Your task to perform on an android device: open app "Yahoo Mail" (install if not already installed) Image 0: 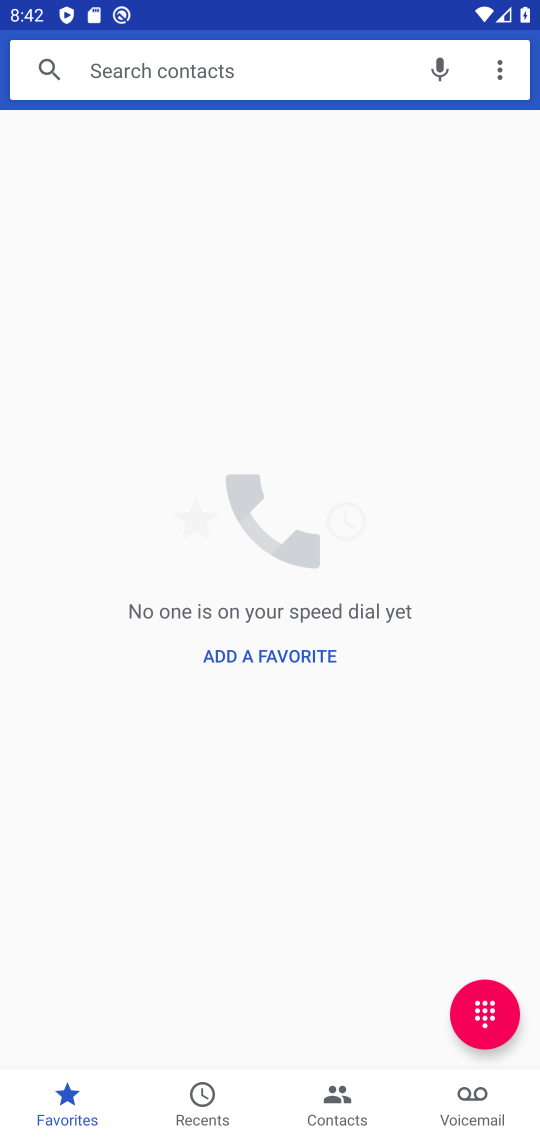
Step 0: click (200, 60)
Your task to perform on an android device: open app "Yahoo Mail" (install if not already installed) Image 1: 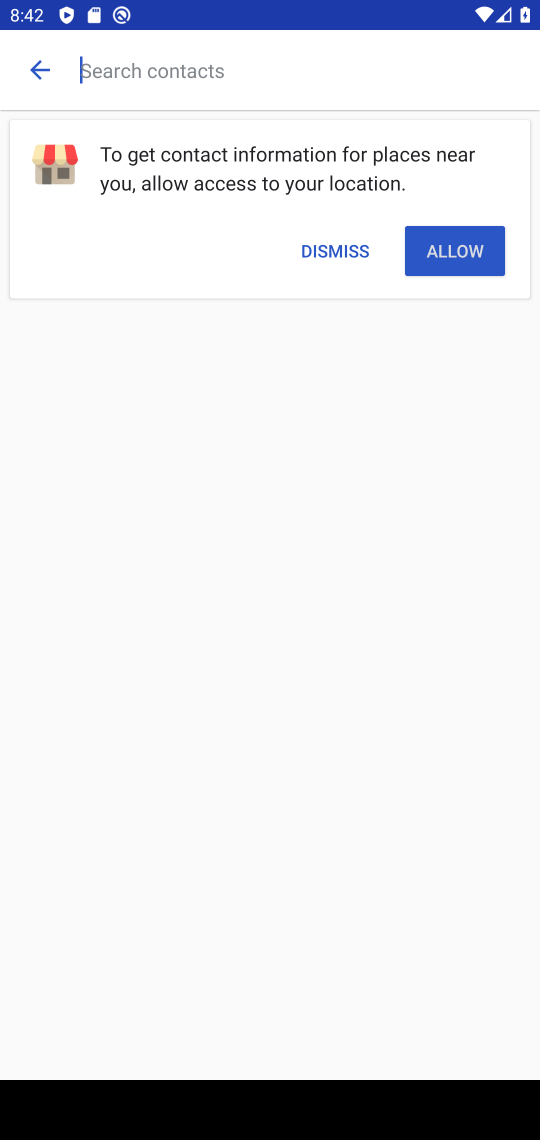
Step 1: type "Yahoo Mail"
Your task to perform on an android device: open app "Yahoo Mail" (install if not already installed) Image 2: 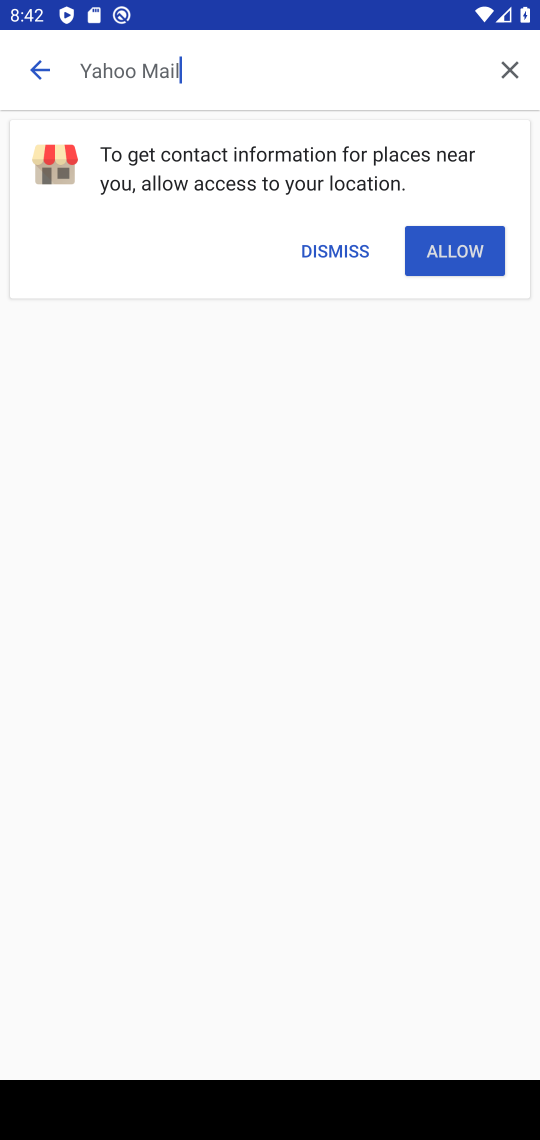
Step 2: press enter
Your task to perform on an android device: open app "Yahoo Mail" (install if not already installed) Image 3: 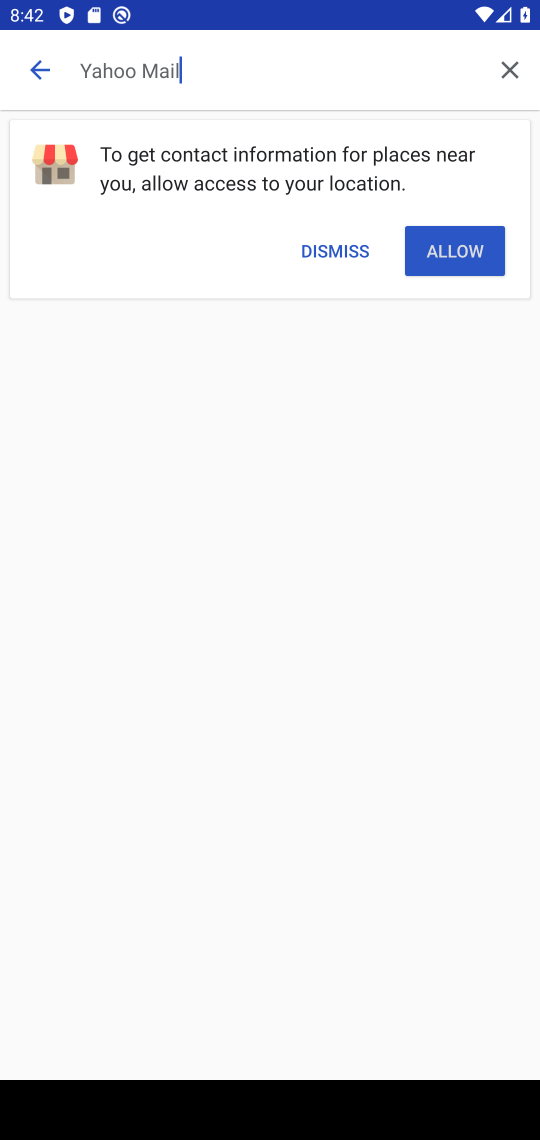
Step 3: press enter
Your task to perform on an android device: open app "Yahoo Mail" (install if not already installed) Image 4: 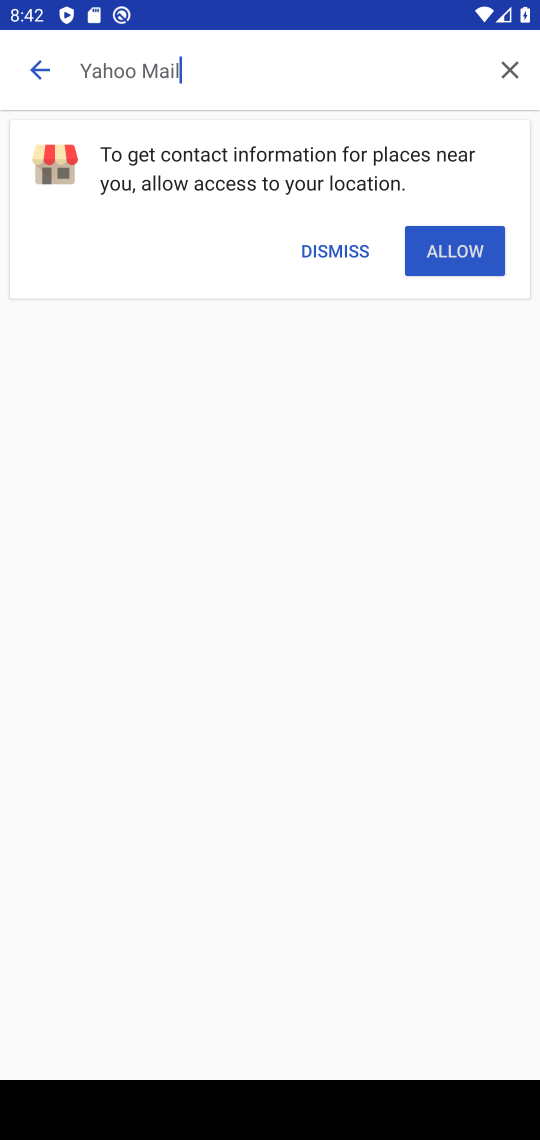
Step 4: click (39, 72)
Your task to perform on an android device: open app "Yahoo Mail" (install if not already installed) Image 5: 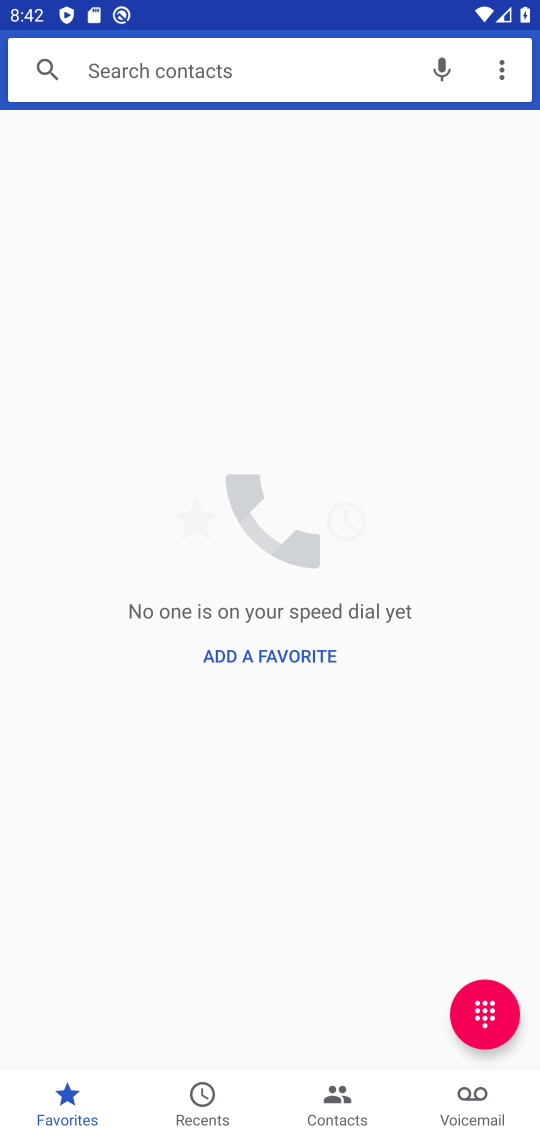
Step 5: press home button
Your task to perform on an android device: open app "Yahoo Mail" (install if not already installed) Image 6: 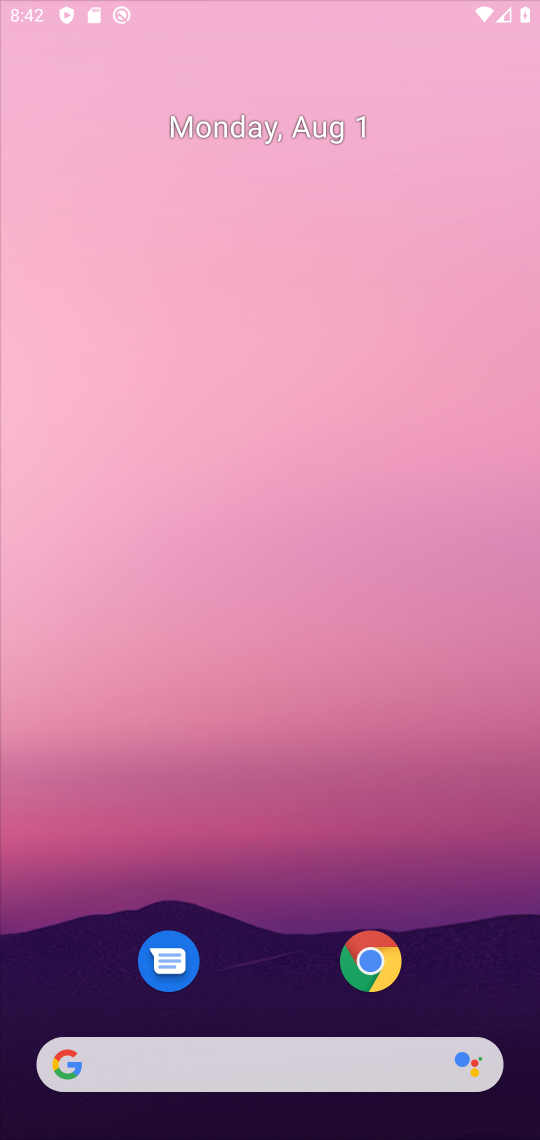
Step 6: drag from (412, 850) to (255, 17)
Your task to perform on an android device: open app "Yahoo Mail" (install if not already installed) Image 7: 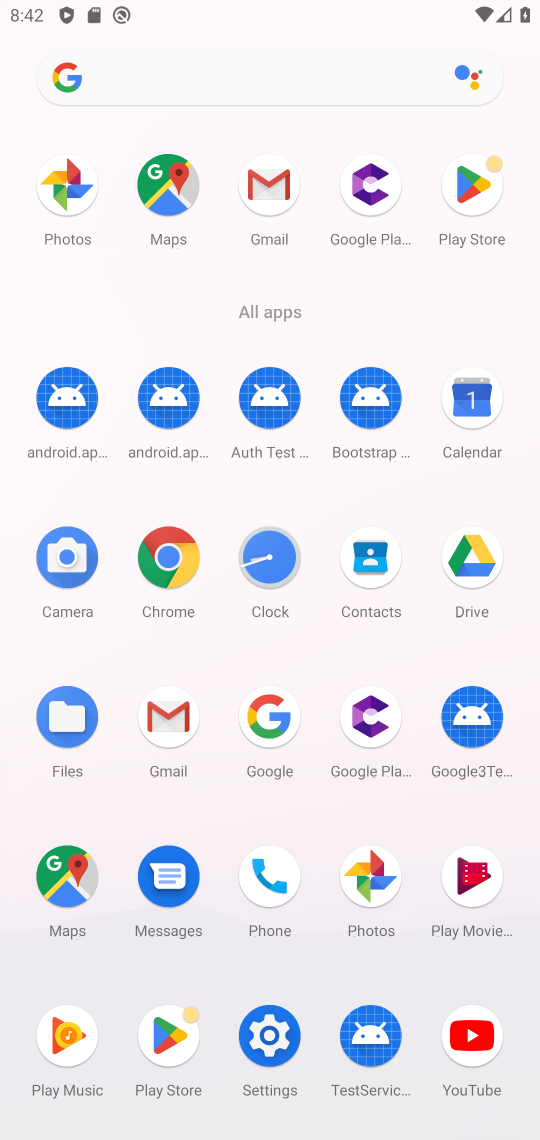
Step 7: click (447, 203)
Your task to perform on an android device: open app "Yahoo Mail" (install if not already installed) Image 8: 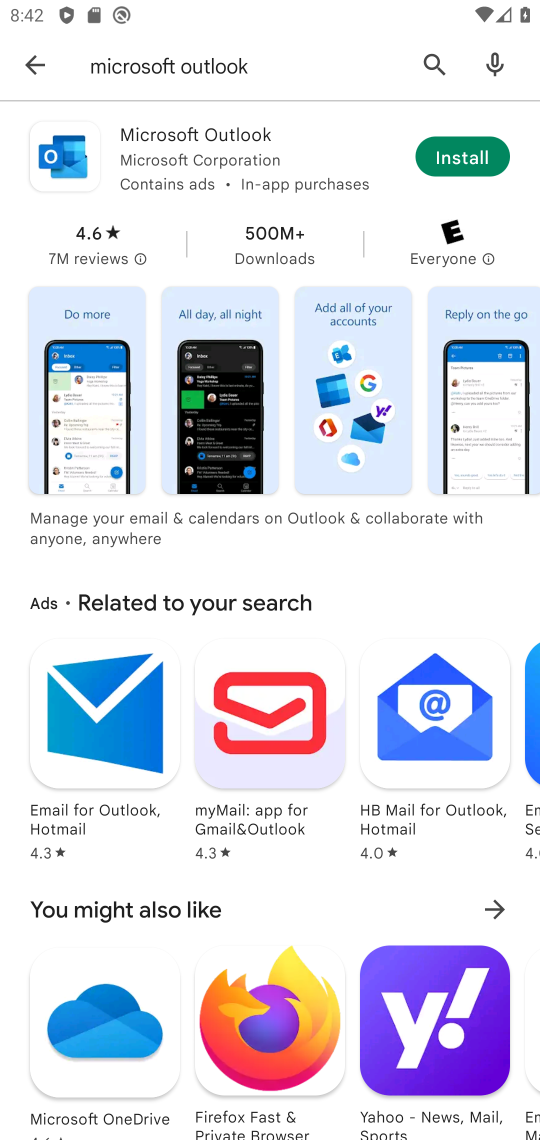
Step 8: click (11, 60)
Your task to perform on an android device: open app "Yahoo Mail" (install if not already installed) Image 9: 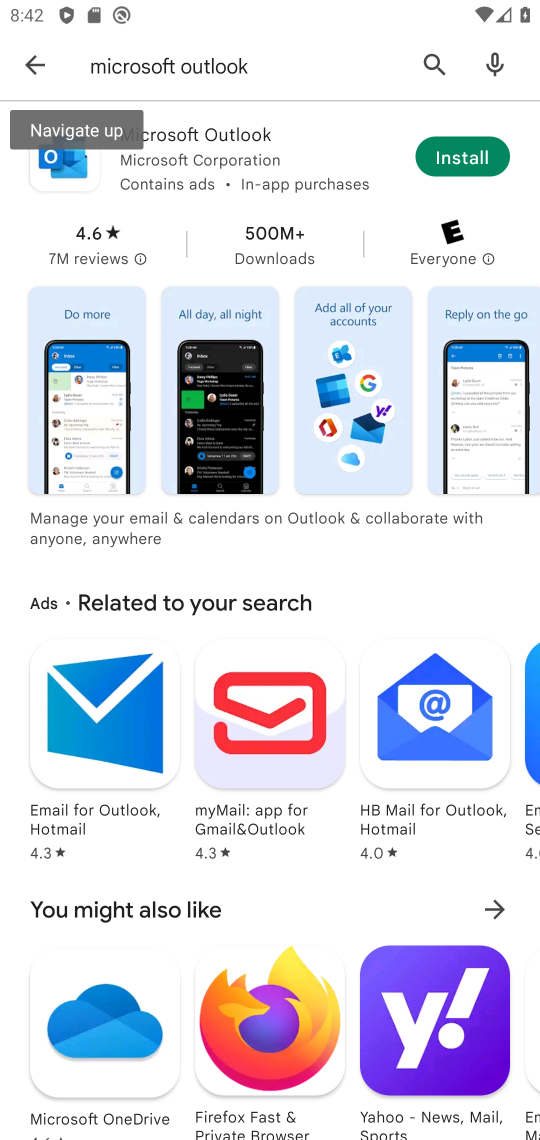
Step 9: click (38, 67)
Your task to perform on an android device: open app "Yahoo Mail" (install if not already installed) Image 10: 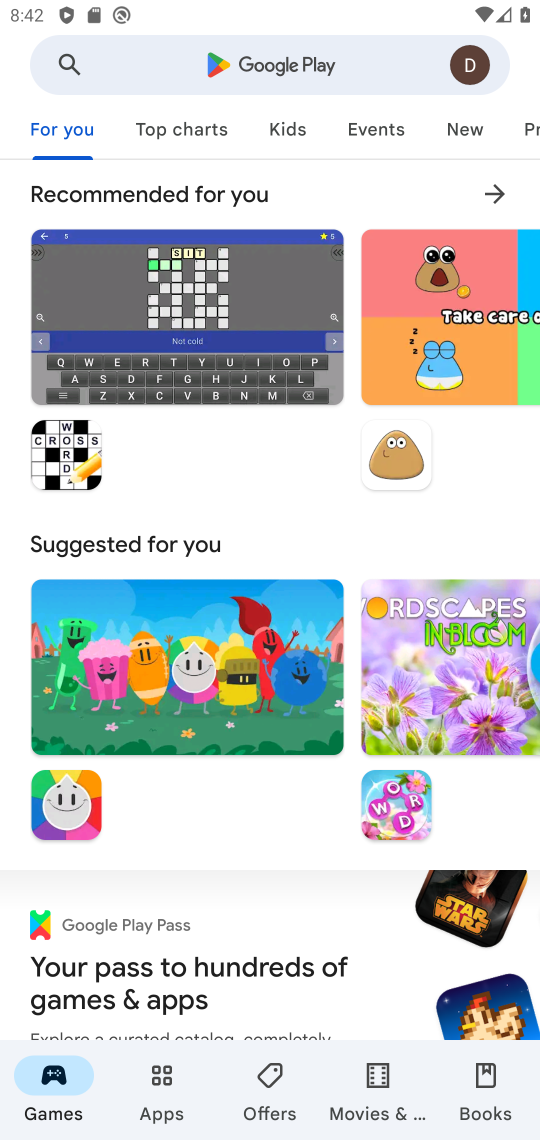
Step 10: click (166, 66)
Your task to perform on an android device: open app "Yahoo Mail" (install if not already installed) Image 11: 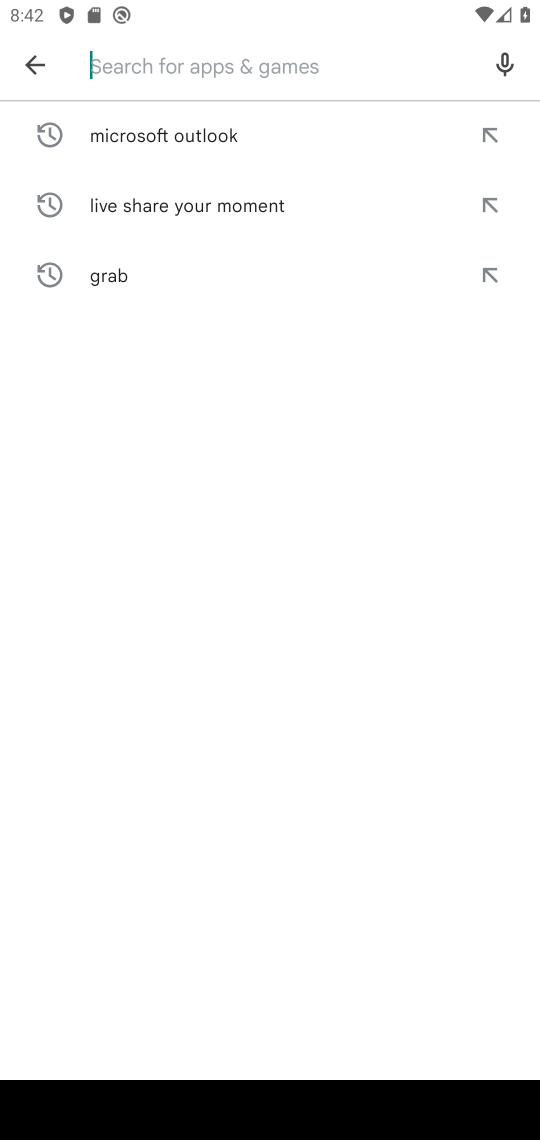
Step 11: type "Yahoo Mail"
Your task to perform on an android device: open app "Yahoo Mail" (install if not already installed) Image 12: 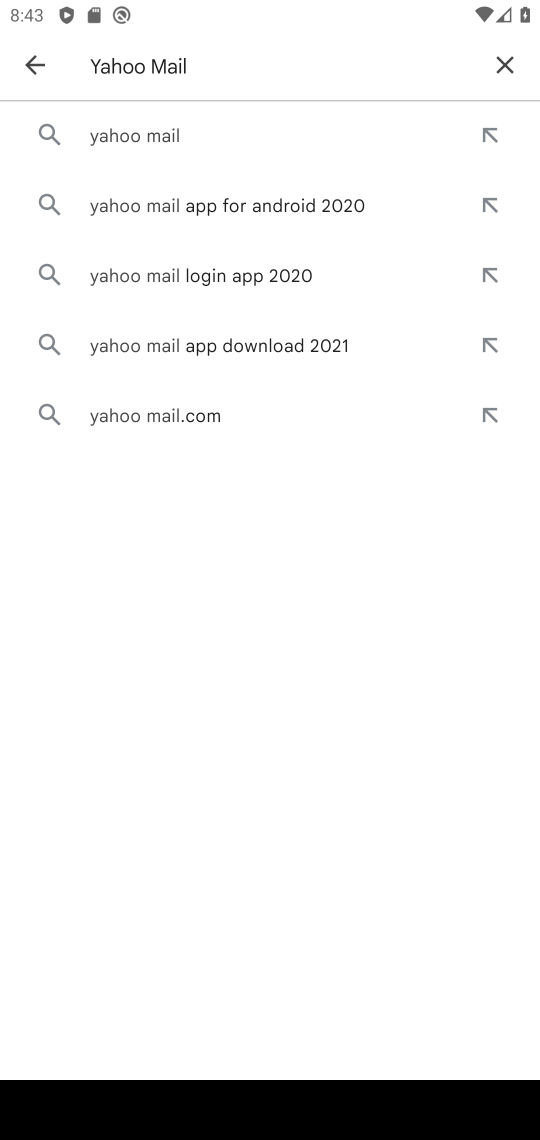
Step 12: click (172, 142)
Your task to perform on an android device: open app "Yahoo Mail" (install if not already installed) Image 13: 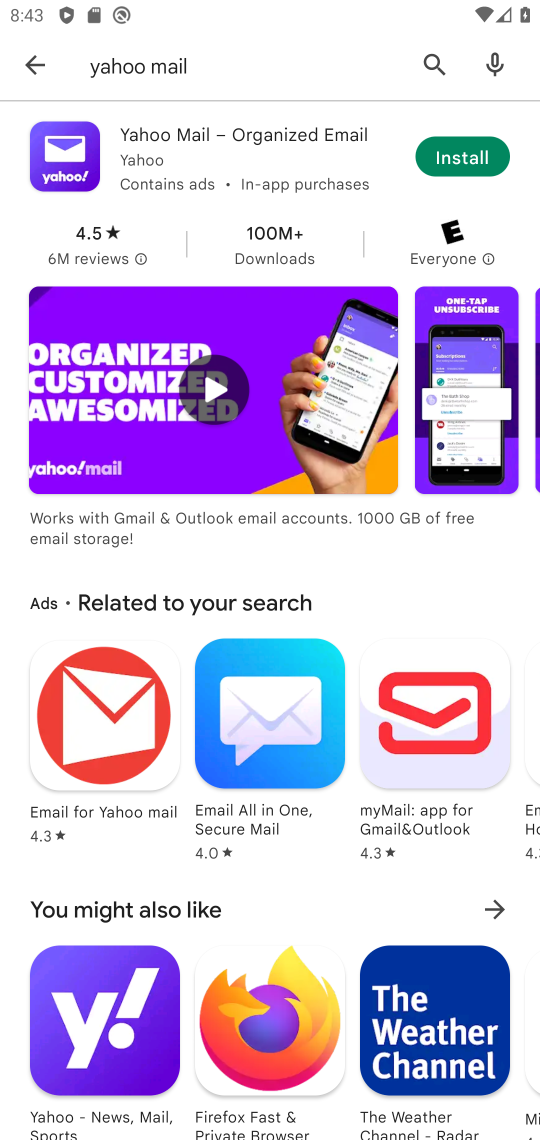
Step 13: click (461, 146)
Your task to perform on an android device: open app "Yahoo Mail" (install if not already installed) Image 14: 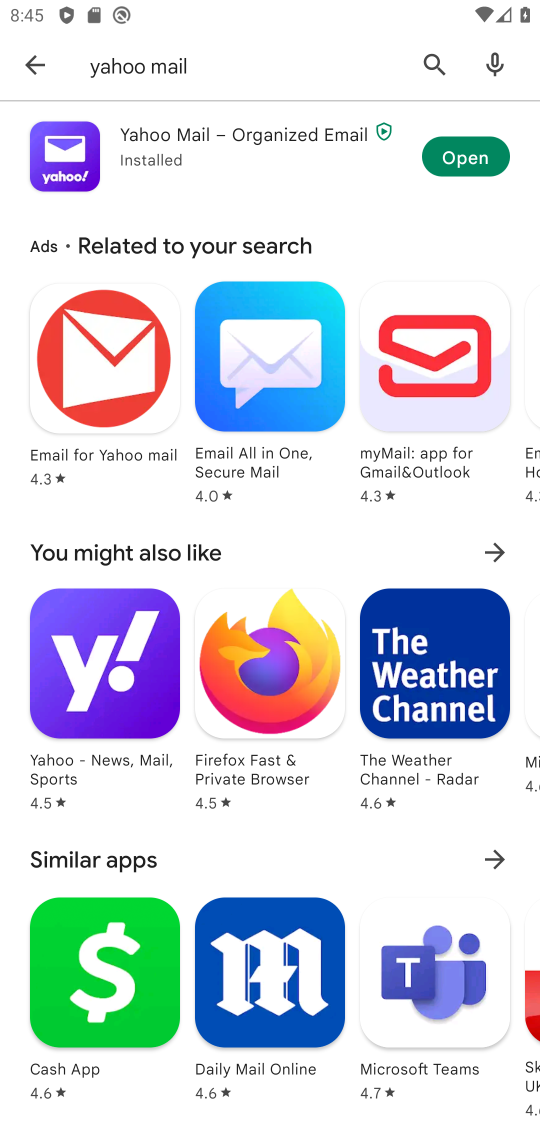
Step 14: click (480, 167)
Your task to perform on an android device: open app "Yahoo Mail" (install if not already installed) Image 15: 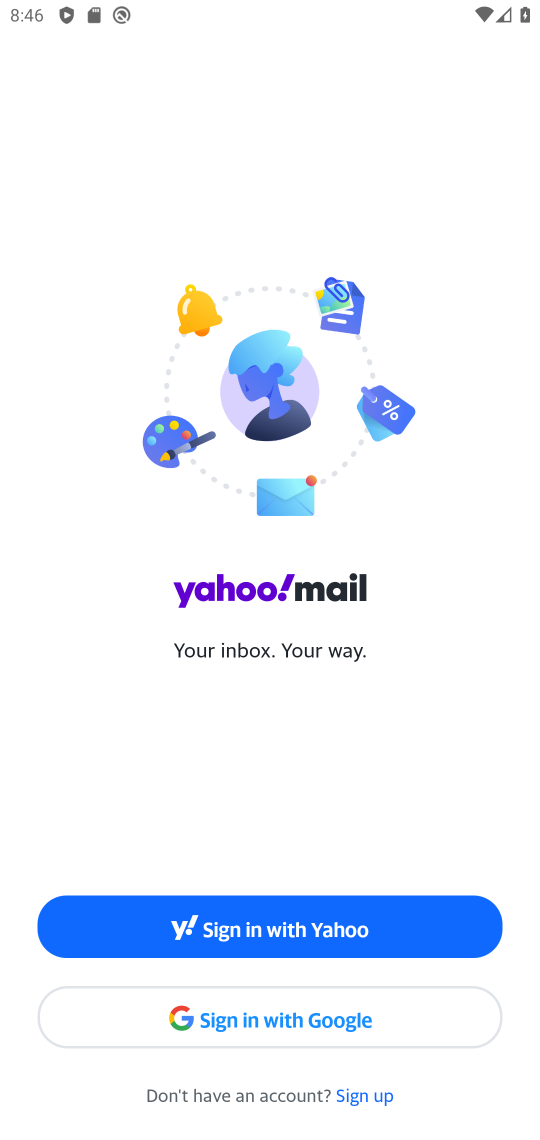
Step 15: task complete